Your task to perform on an android device: Open display settings Image 0: 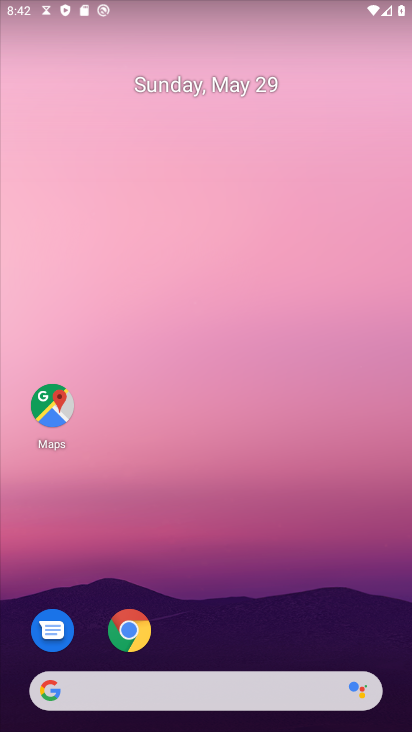
Step 0: drag from (236, 640) to (242, 330)
Your task to perform on an android device: Open display settings Image 1: 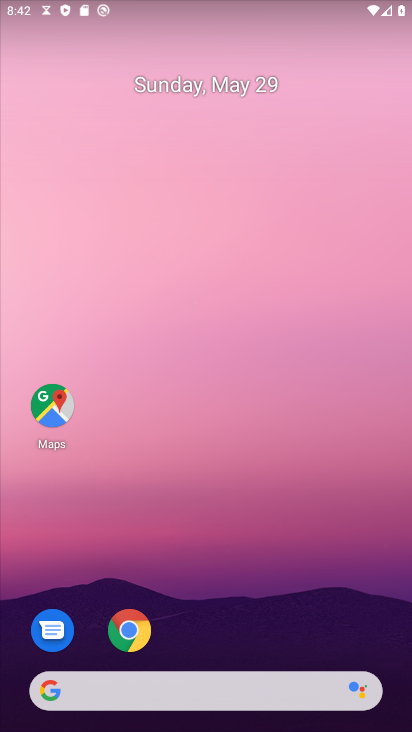
Step 1: drag from (265, 539) to (234, 165)
Your task to perform on an android device: Open display settings Image 2: 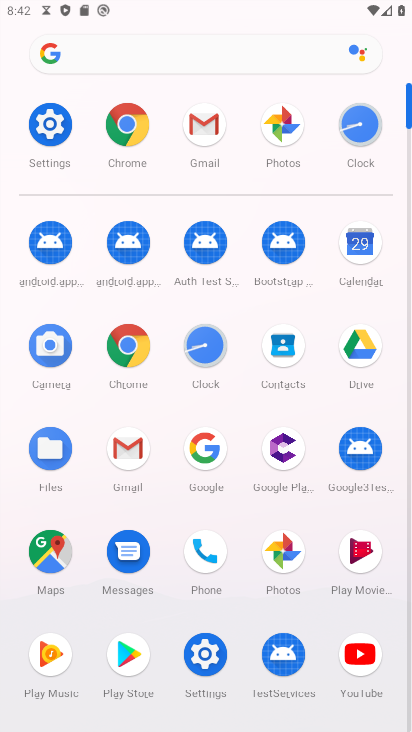
Step 2: click (56, 120)
Your task to perform on an android device: Open display settings Image 3: 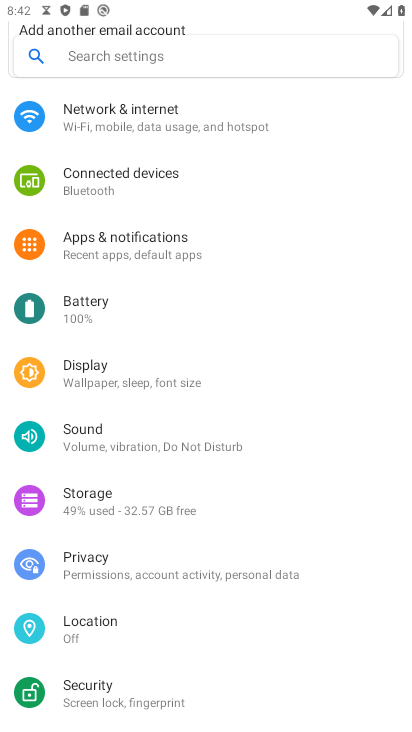
Step 3: click (94, 376)
Your task to perform on an android device: Open display settings Image 4: 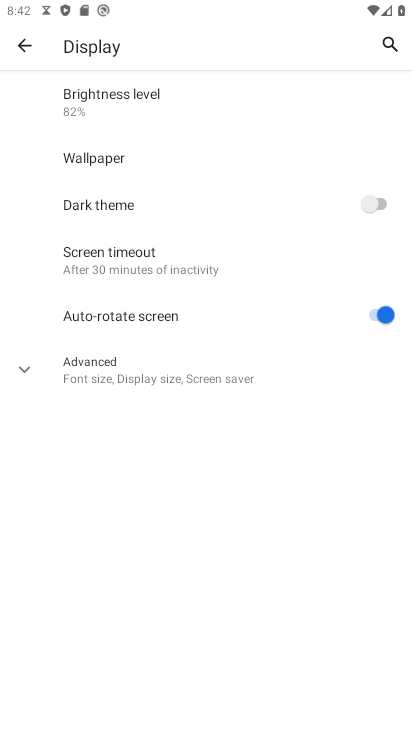
Step 4: task complete